Your task to perform on an android device: turn off wifi Image 0: 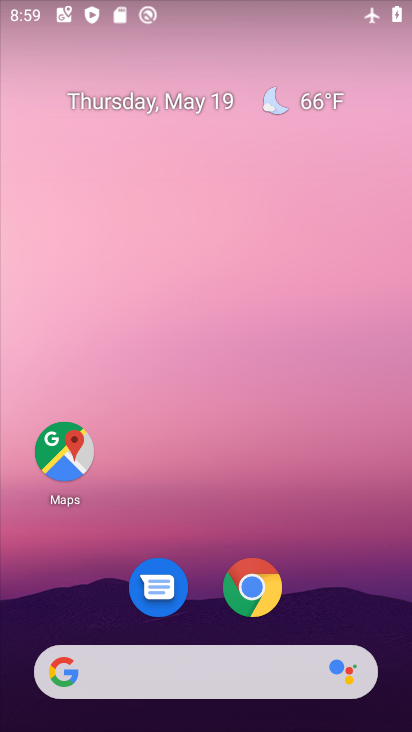
Step 0: drag from (249, 704) to (228, 95)
Your task to perform on an android device: turn off wifi Image 1: 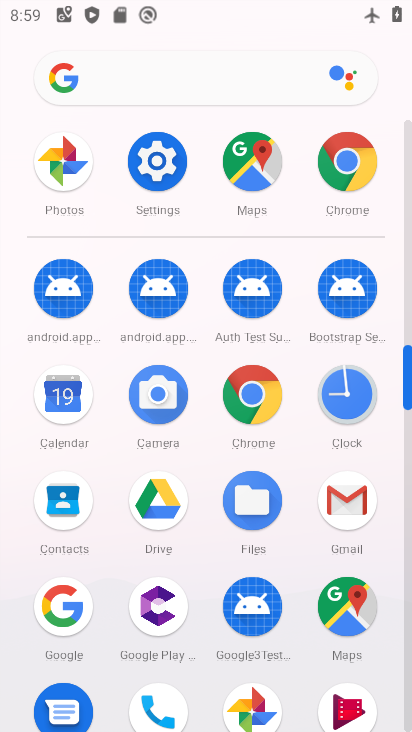
Step 1: click (150, 159)
Your task to perform on an android device: turn off wifi Image 2: 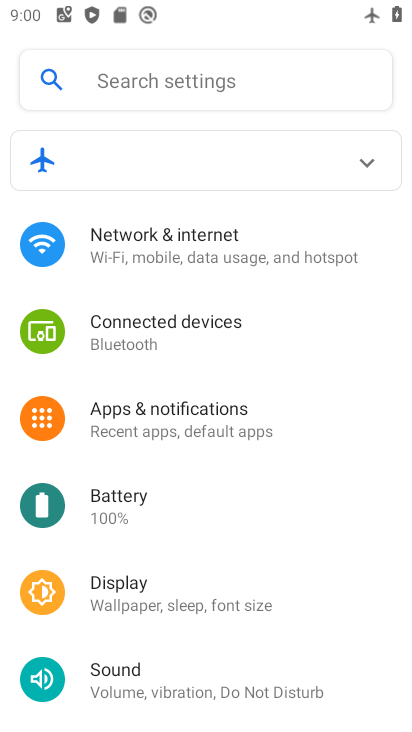
Step 2: click (145, 247)
Your task to perform on an android device: turn off wifi Image 3: 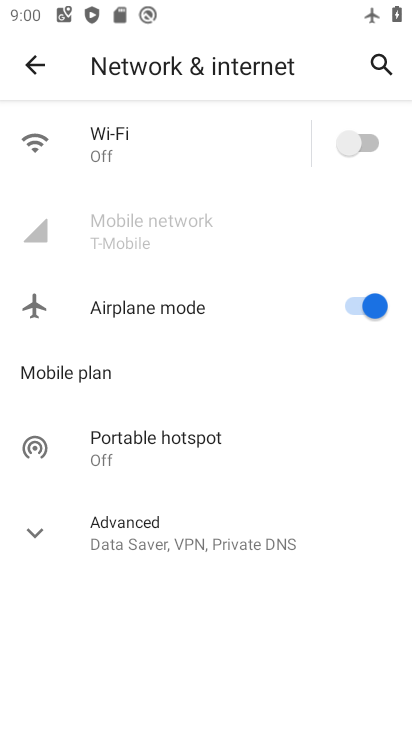
Step 3: click (355, 143)
Your task to perform on an android device: turn off wifi Image 4: 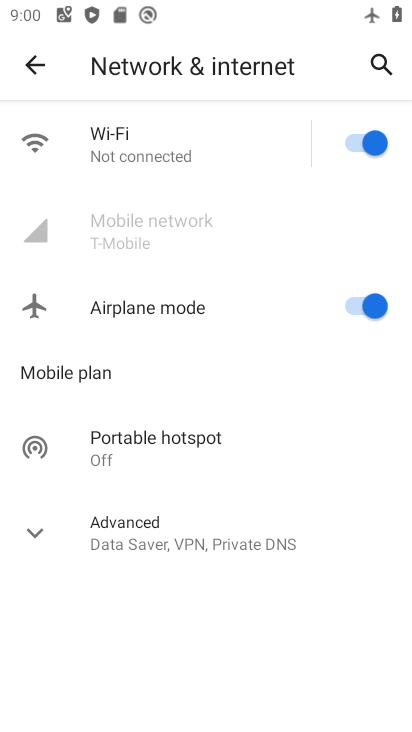
Step 4: click (355, 143)
Your task to perform on an android device: turn off wifi Image 5: 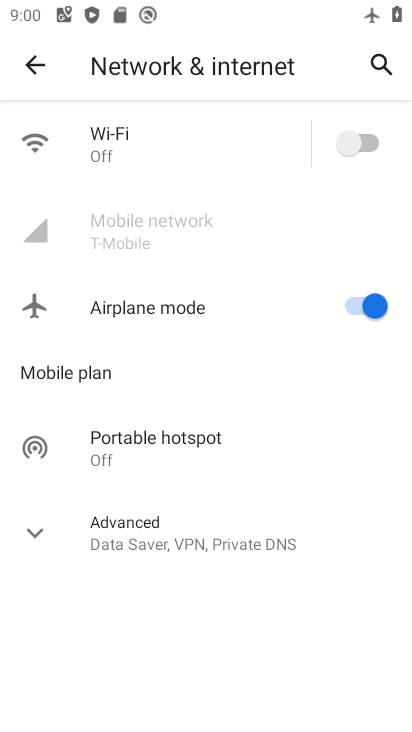
Step 5: task complete